Your task to perform on an android device: Search for the best selling book on Amazon. Image 0: 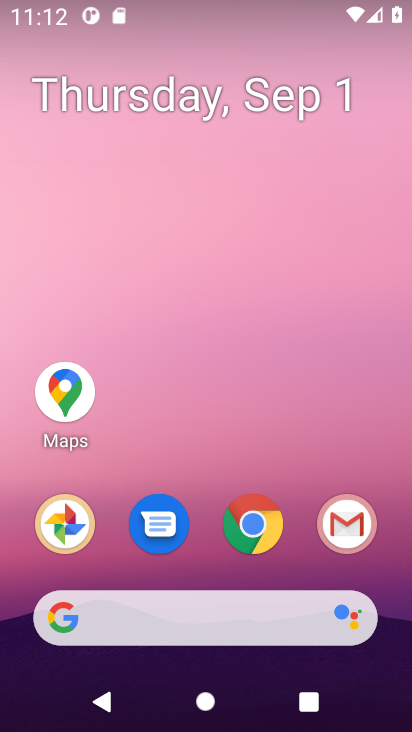
Step 0: drag from (396, 584) to (404, 168)
Your task to perform on an android device: Search for the best selling book on Amazon. Image 1: 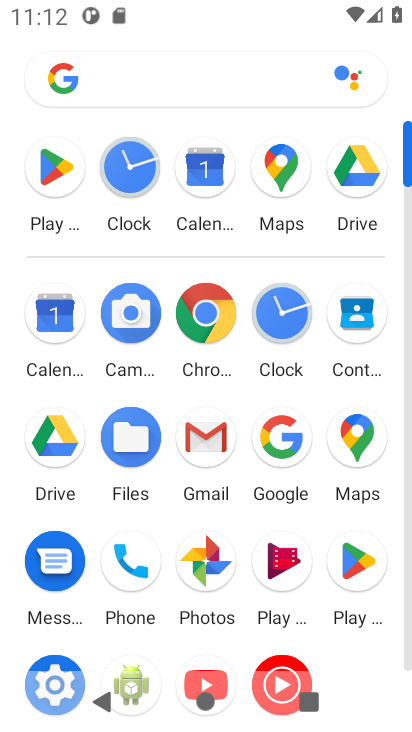
Step 1: click (209, 313)
Your task to perform on an android device: Search for the best selling book on Amazon. Image 2: 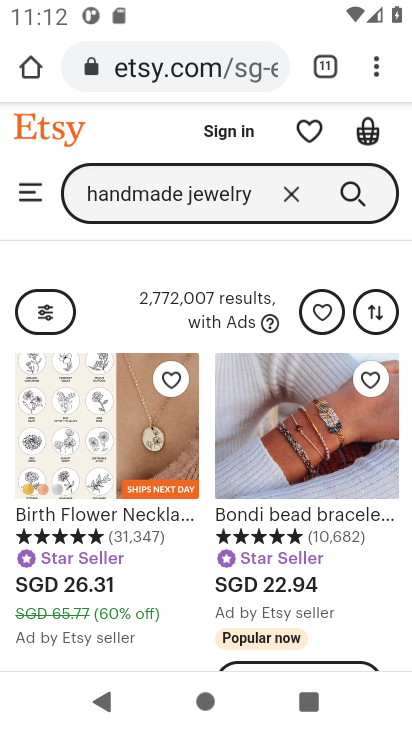
Step 2: click (226, 69)
Your task to perform on an android device: Search for the best selling book on Amazon. Image 3: 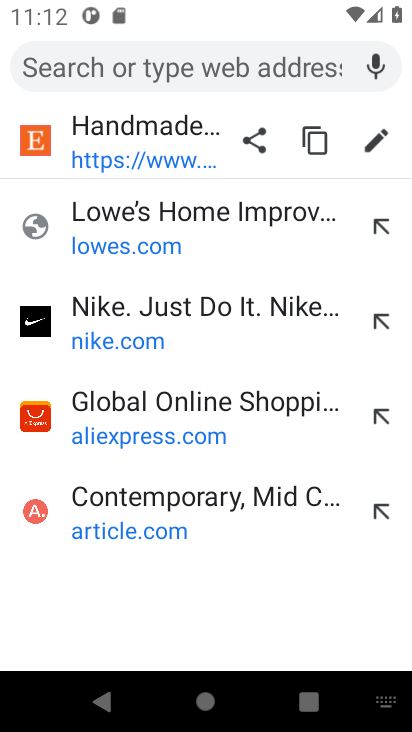
Step 3: press enter
Your task to perform on an android device: Search for the best selling book on Amazon. Image 4: 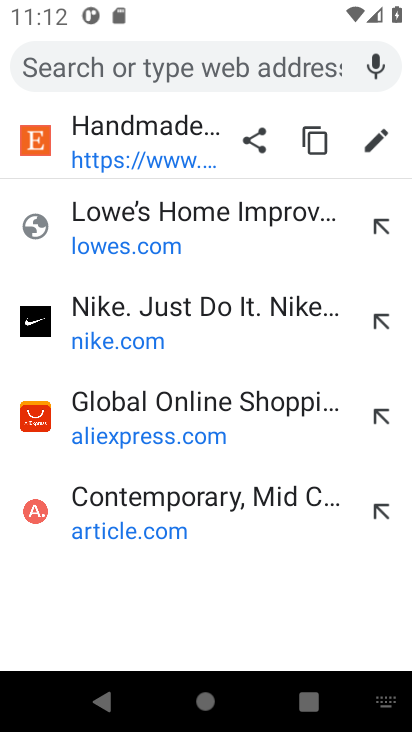
Step 4: type "amazon"
Your task to perform on an android device: Search for the best selling book on Amazon. Image 5: 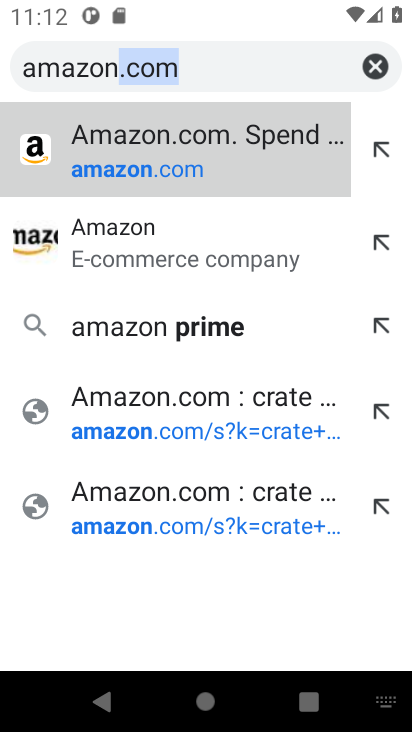
Step 5: click (171, 145)
Your task to perform on an android device: Search for the best selling book on Amazon. Image 6: 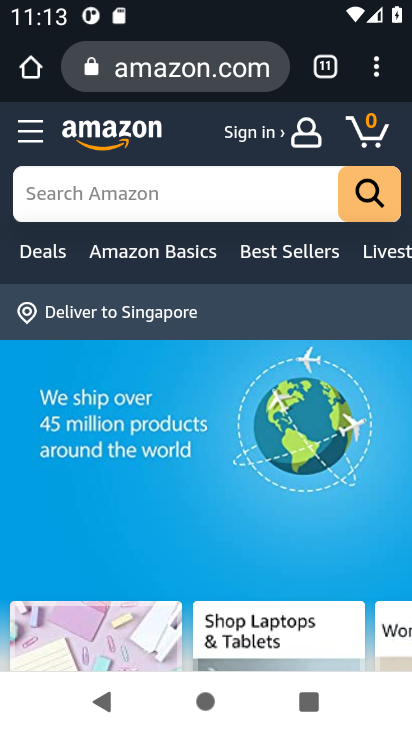
Step 6: click (186, 194)
Your task to perform on an android device: Search for the best selling book on Amazon. Image 7: 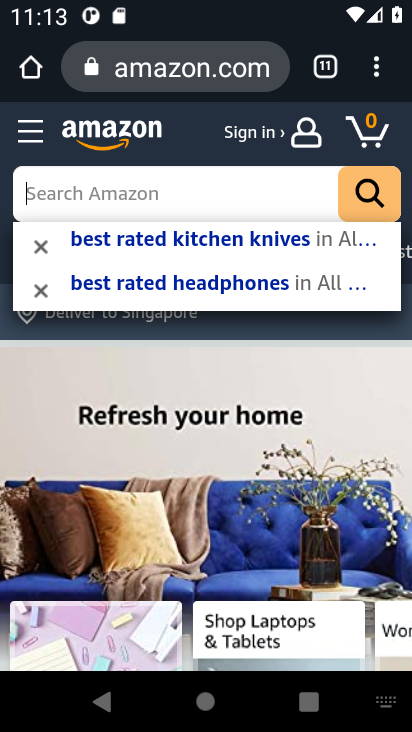
Step 7: press enter
Your task to perform on an android device: Search for the best selling book on Amazon. Image 8: 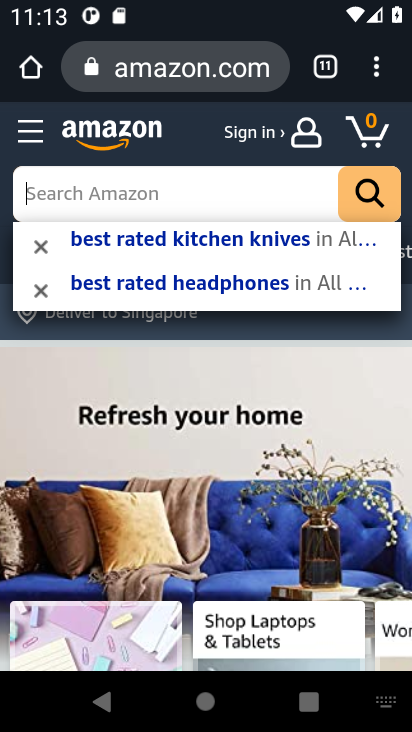
Step 8: type "best selling book"
Your task to perform on an android device: Search for the best selling book on Amazon. Image 9: 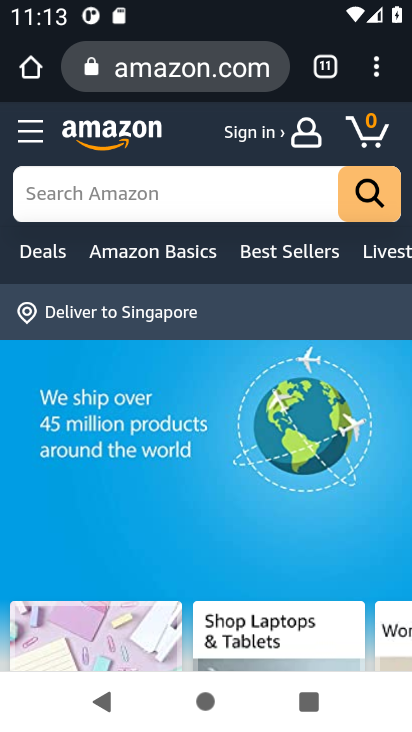
Step 9: click (275, 187)
Your task to perform on an android device: Search for the best selling book on Amazon. Image 10: 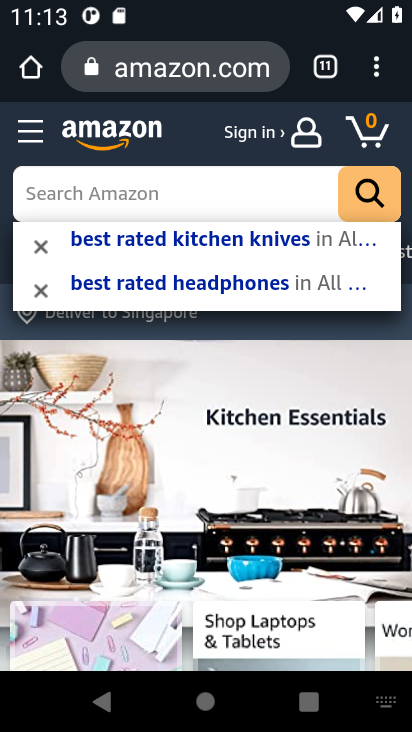
Step 10: type "best selling book"
Your task to perform on an android device: Search for the best selling book on Amazon. Image 11: 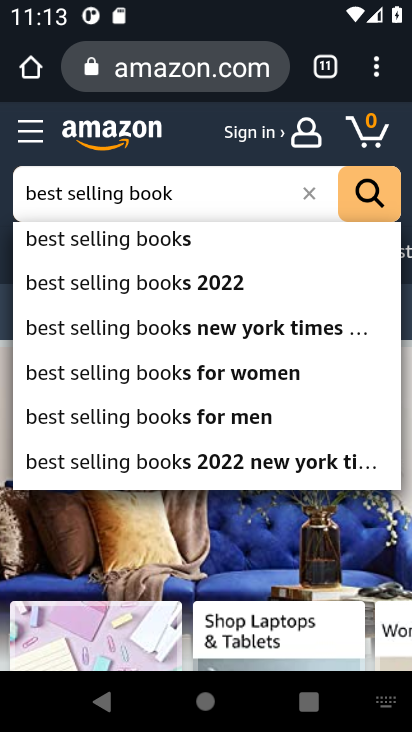
Step 11: click (169, 239)
Your task to perform on an android device: Search for the best selling book on Amazon. Image 12: 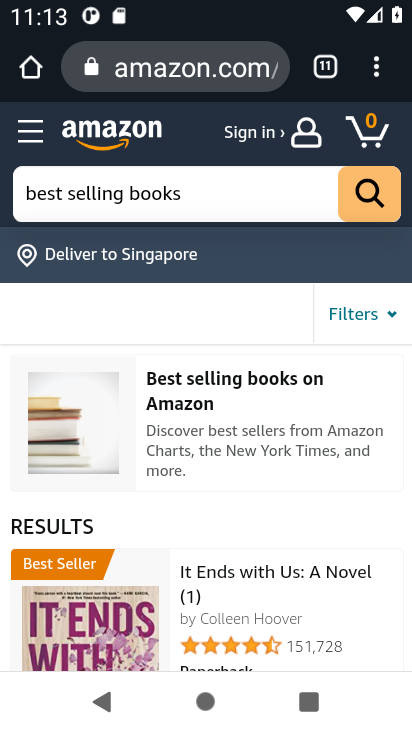
Step 12: task complete